Your task to perform on an android device: turn on translation in the chrome app Image 0: 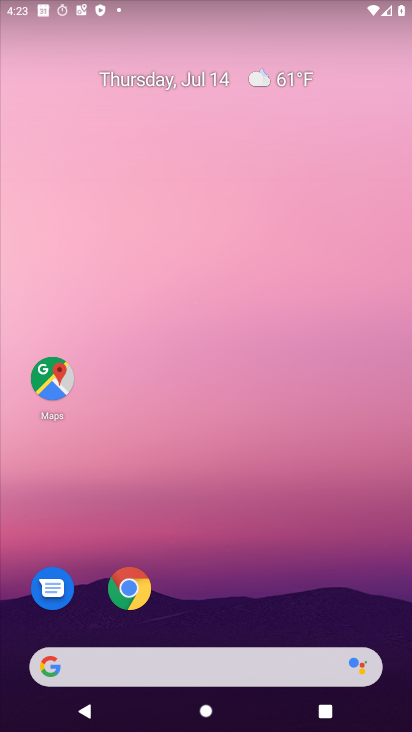
Step 0: click (130, 590)
Your task to perform on an android device: turn on translation in the chrome app Image 1: 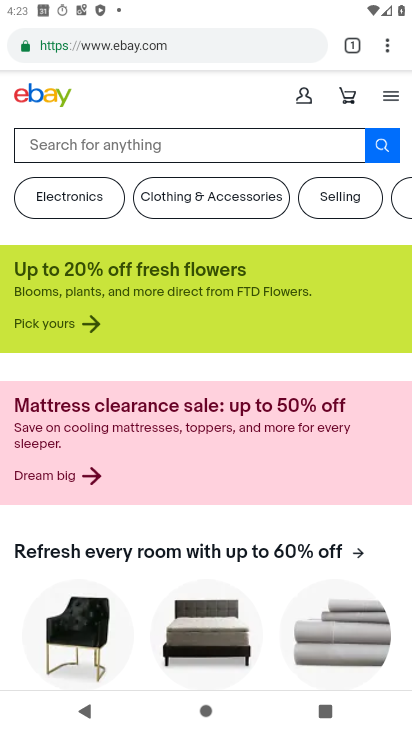
Step 1: click (389, 44)
Your task to perform on an android device: turn on translation in the chrome app Image 2: 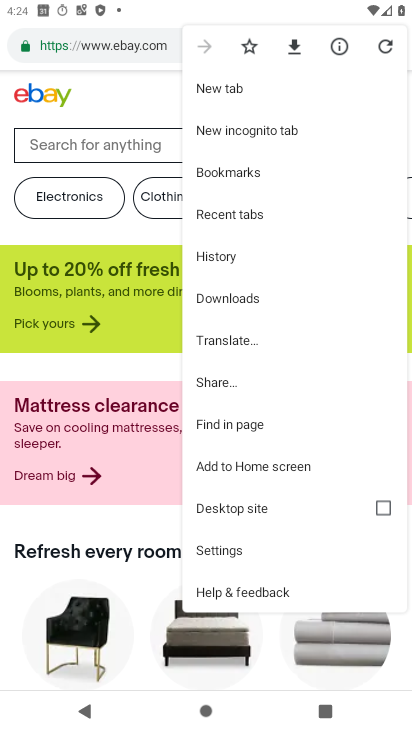
Step 2: click (218, 548)
Your task to perform on an android device: turn on translation in the chrome app Image 3: 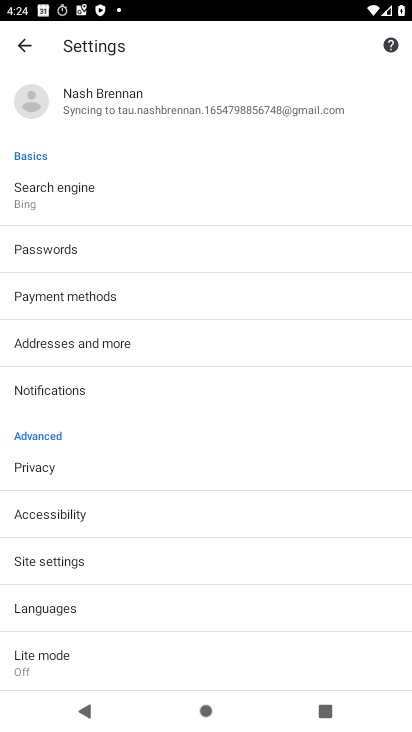
Step 3: click (64, 609)
Your task to perform on an android device: turn on translation in the chrome app Image 4: 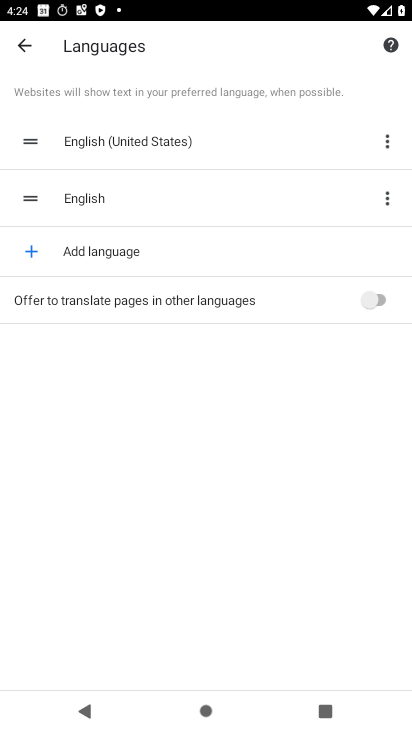
Step 4: click (375, 302)
Your task to perform on an android device: turn on translation in the chrome app Image 5: 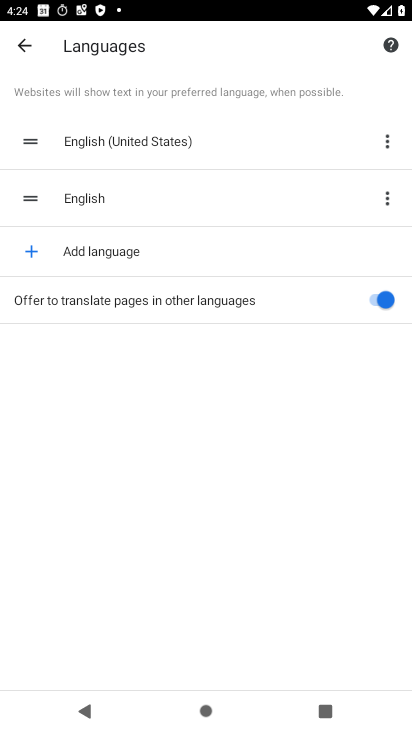
Step 5: task complete